Your task to perform on an android device: Open Youtube and go to "Your channel" Image 0: 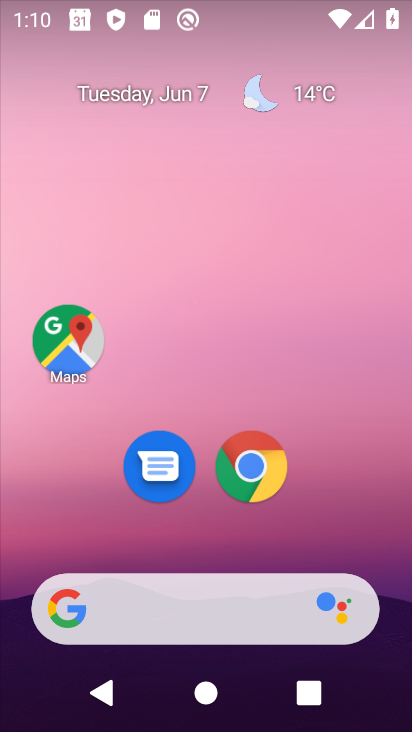
Step 0: drag from (198, 569) to (270, 66)
Your task to perform on an android device: Open Youtube and go to "Your channel" Image 1: 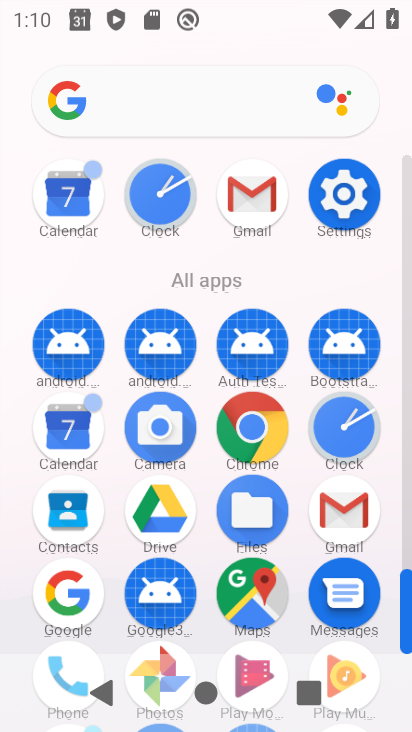
Step 1: drag from (249, 593) to (320, 56)
Your task to perform on an android device: Open Youtube and go to "Your channel" Image 2: 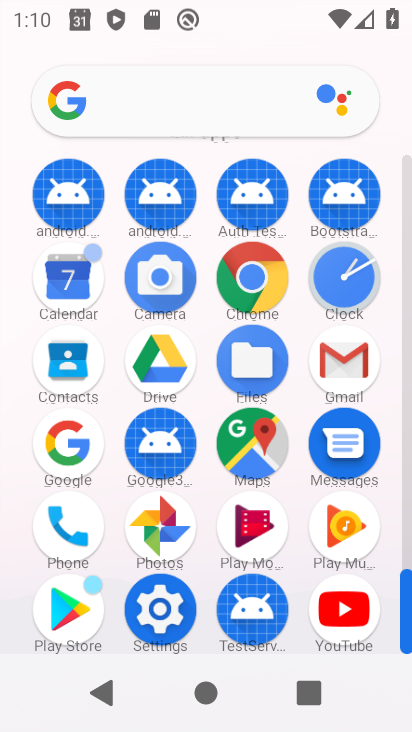
Step 2: click (347, 621)
Your task to perform on an android device: Open Youtube and go to "Your channel" Image 3: 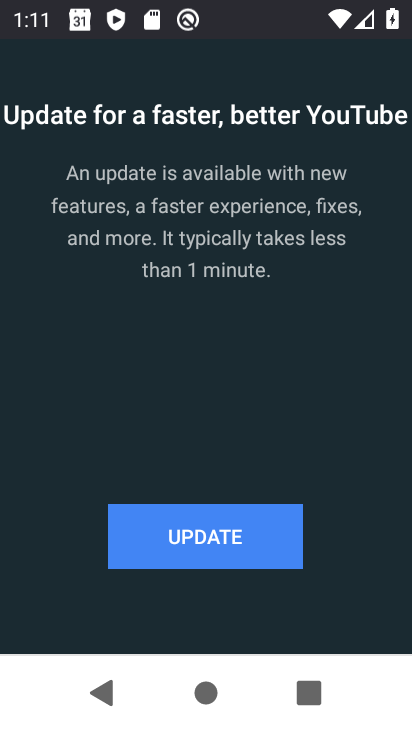
Step 3: click (198, 511)
Your task to perform on an android device: Open Youtube and go to "Your channel" Image 4: 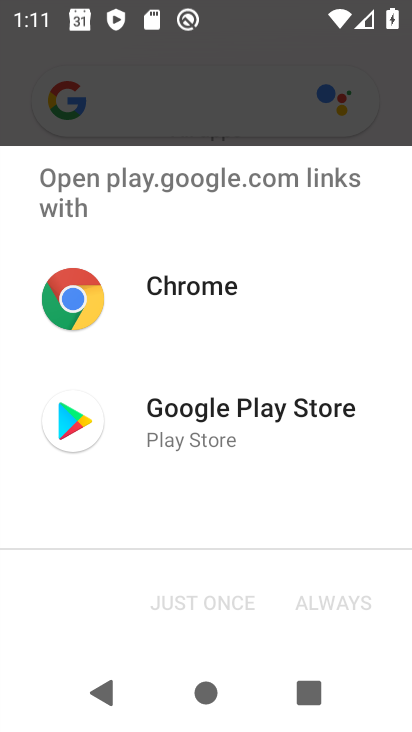
Step 4: click (200, 419)
Your task to perform on an android device: Open Youtube and go to "Your channel" Image 5: 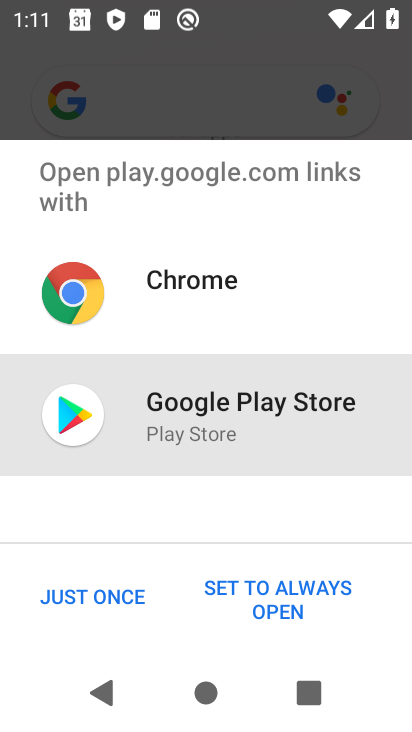
Step 5: click (101, 593)
Your task to perform on an android device: Open Youtube and go to "Your channel" Image 6: 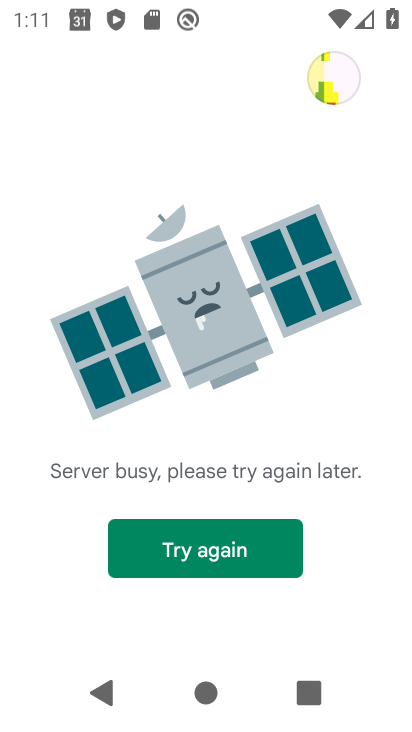
Step 6: click (173, 555)
Your task to perform on an android device: Open Youtube and go to "Your channel" Image 7: 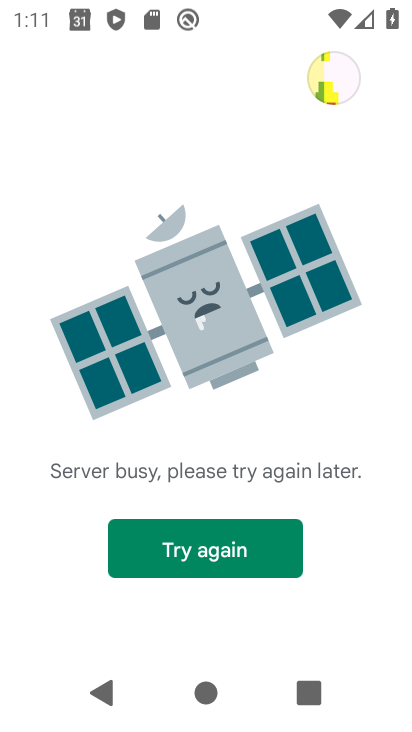
Step 7: click (200, 560)
Your task to perform on an android device: Open Youtube and go to "Your channel" Image 8: 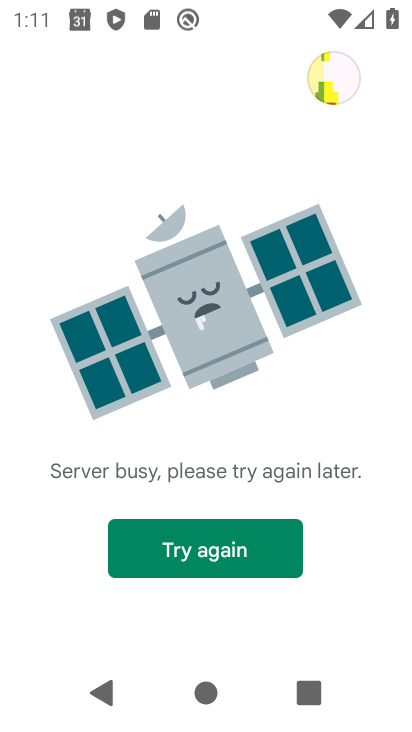
Step 8: click (211, 562)
Your task to perform on an android device: Open Youtube and go to "Your channel" Image 9: 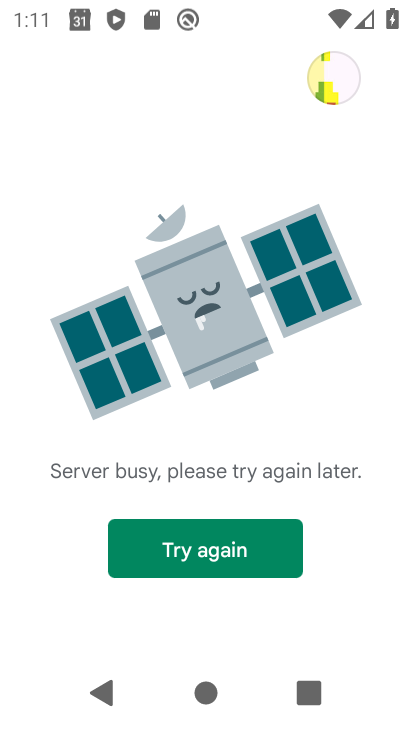
Step 9: press back button
Your task to perform on an android device: Open Youtube and go to "Your channel" Image 10: 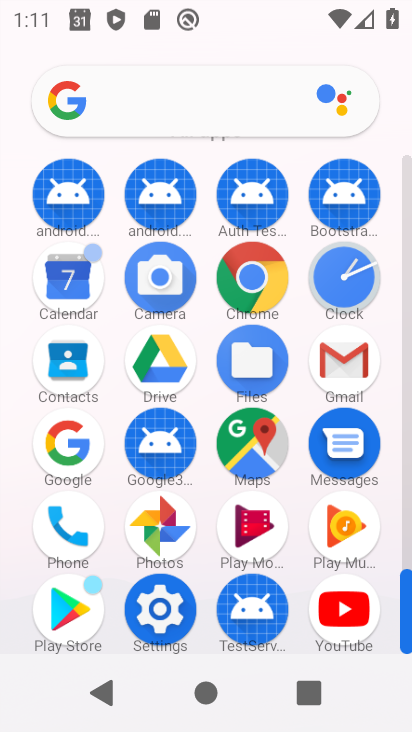
Step 10: click (339, 628)
Your task to perform on an android device: Open Youtube and go to "Your channel" Image 11: 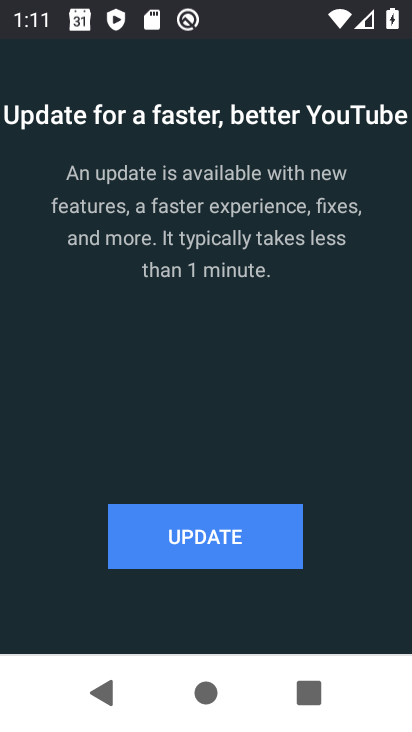
Step 11: click (207, 552)
Your task to perform on an android device: Open Youtube and go to "Your channel" Image 12: 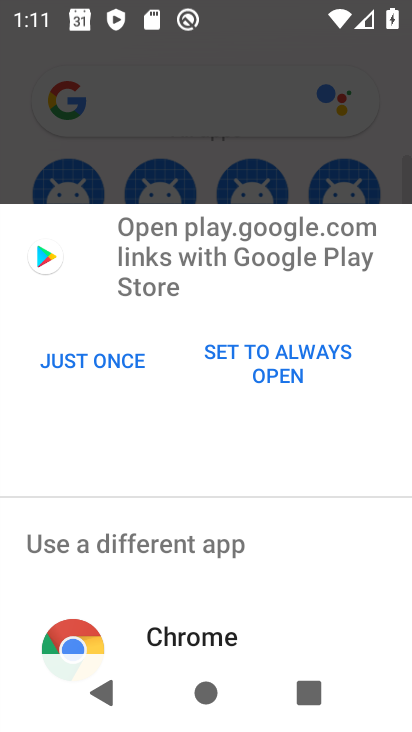
Step 12: click (95, 361)
Your task to perform on an android device: Open Youtube and go to "Your channel" Image 13: 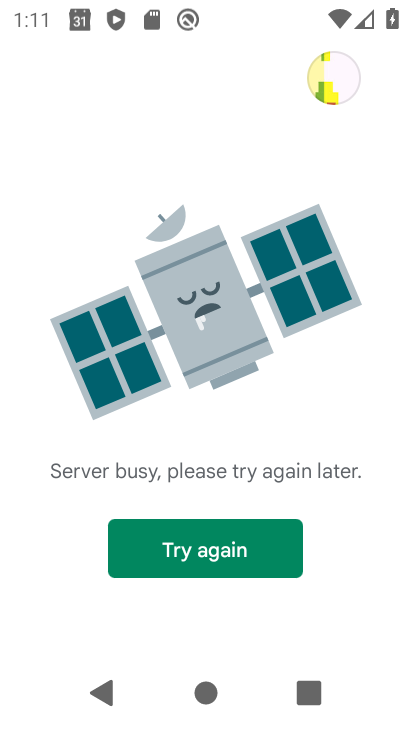
Step 13: task complete